Your task to perform on an android device: Go to Yahoo.com Image 0: 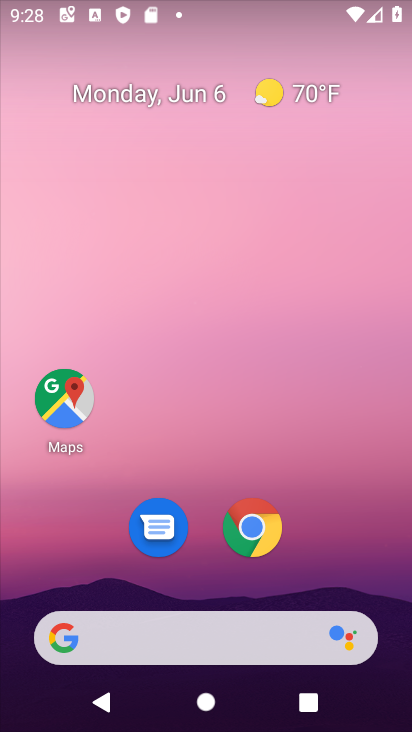
Step 0: drag from (205, 545) to (230, 249)
Your task to perform on an android device: Go to Yahoo.com Image 1: 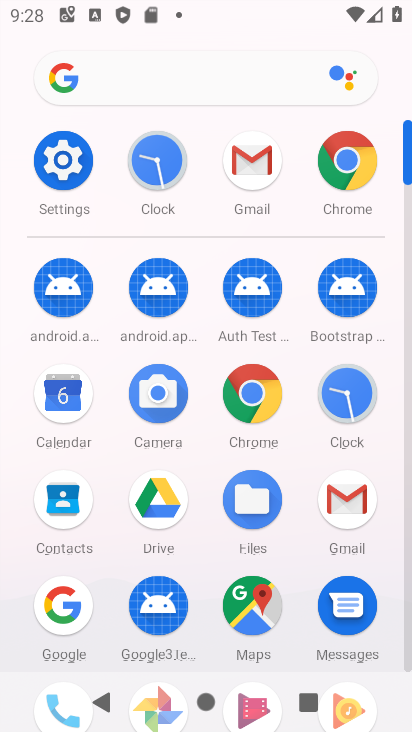
Step 1: click (353, 193)
Your task to perform on an android device: Go to Yahoo.com Image 2: 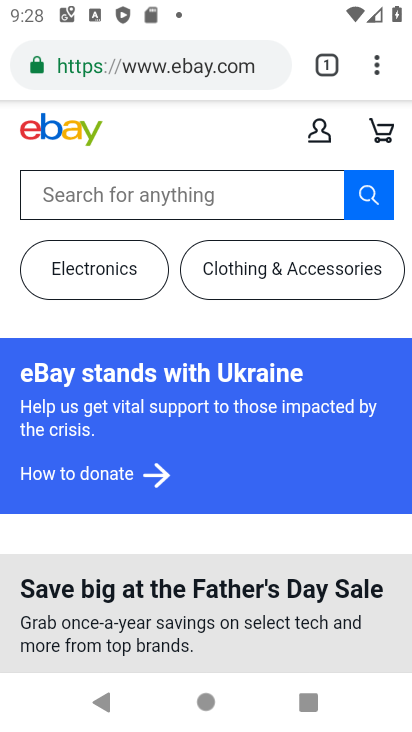
Step 2: click (265, 63)
Your task to perform on an android device: Go to Yahoo.com Image 3: 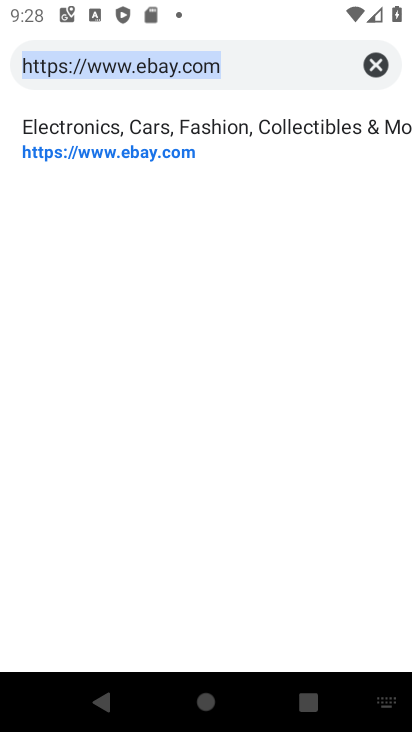
Step 3: type "yahoo"
Your task to perform on an android device: Go to Yahoo.com Image 4: 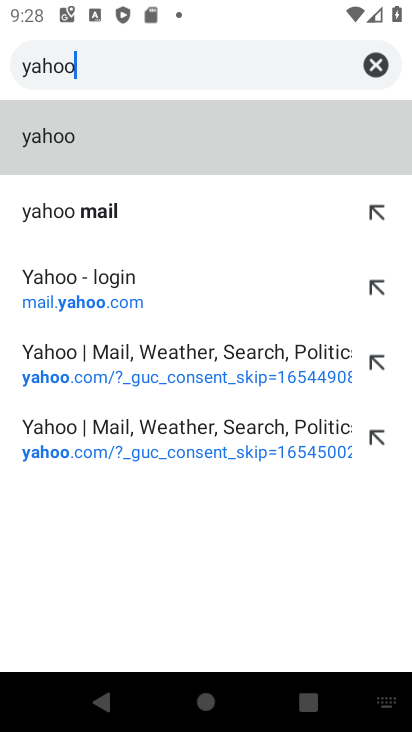
Step 4: click (79, 305)
Your task to perform on an android device: Go to Yahoo.com Image 5: 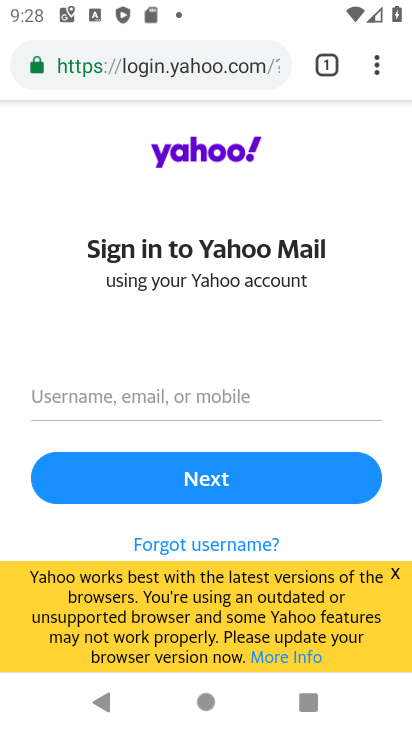
Step 5: task complete